Your task to perform on an android device: Open Google Chrome Image 0: 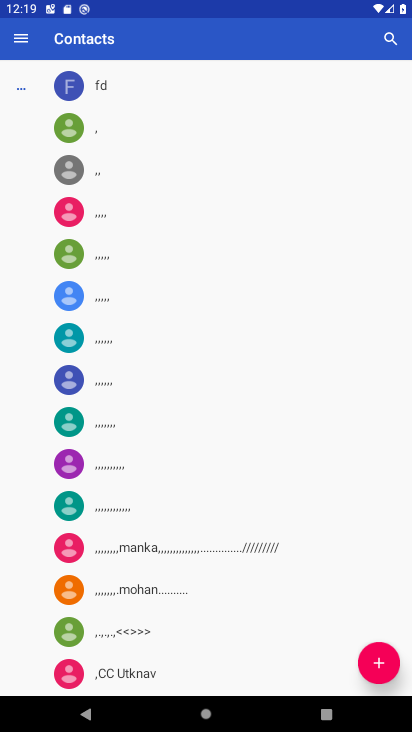
Step 0: press home button
Your task to perform on an android device: Open Google Chrome Image 1: 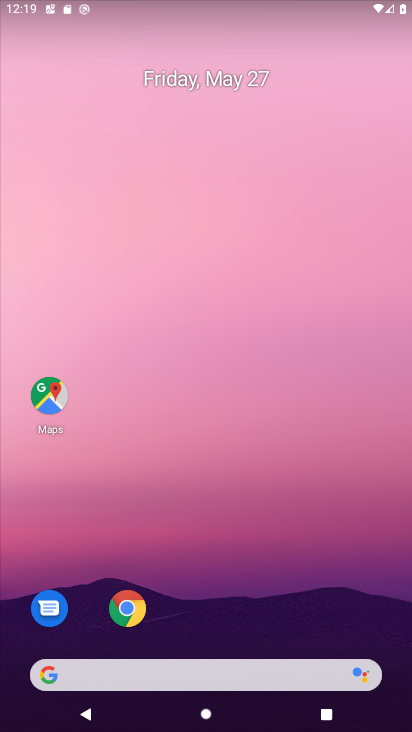
Step 1: click (131, 611)
Your task to perform on an android device: Open Google Chrome Image 2: 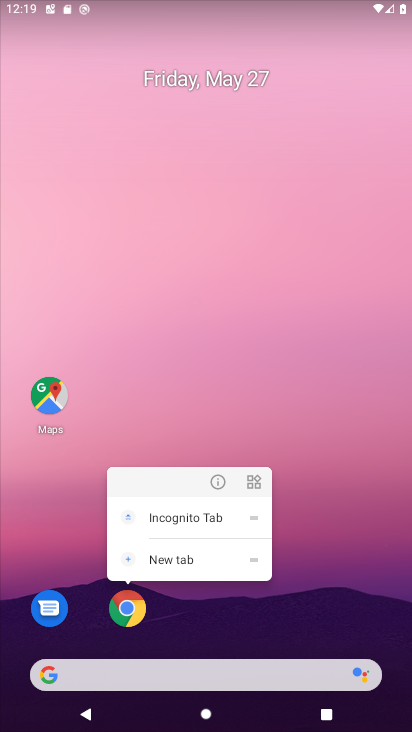
Step 2: click (130, 610)
Your task to perform on an android device: Open Google Chrome Image 3: 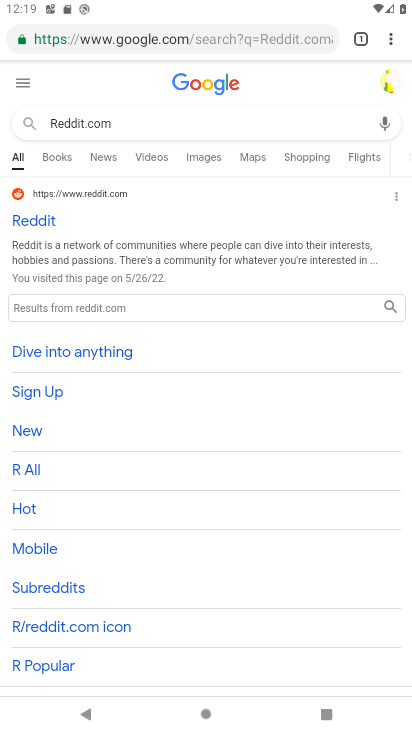
Step 3: task complete